Your task to perform on an android device: turn smart compose on in the gmail app Image 0: 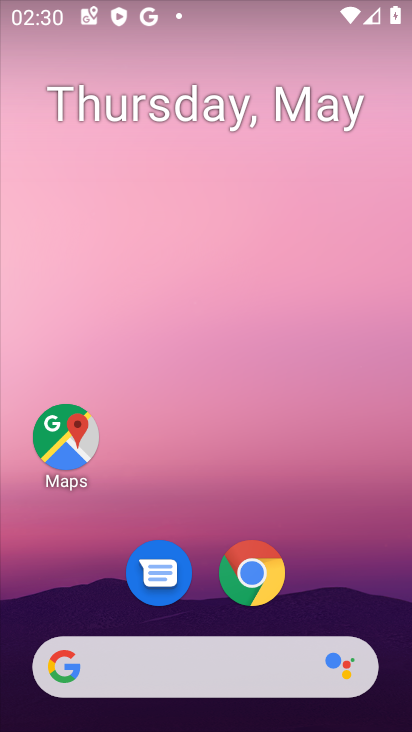
Step 0: drag from (328, 455) to (328, 297)
Your task to perform on an android device: turn smart compose on in the gmail app Image 1: 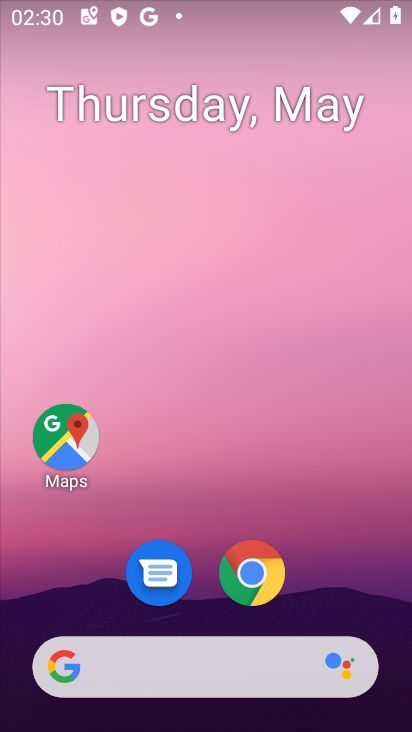
Step 1: drag from (321, 591) to (338, 176)
Your task to perform on an android device: turn smart compose on in the gmail app Image 2: 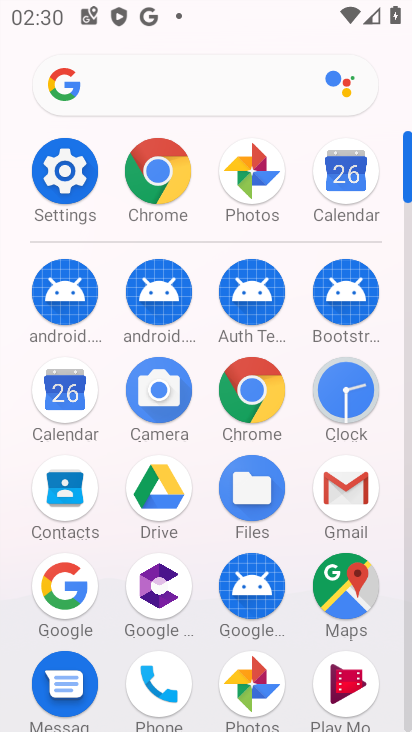
Step 2: click (334, 491)
Your task to perform on an android device: turn smart compose on in the gmail app Image 3: 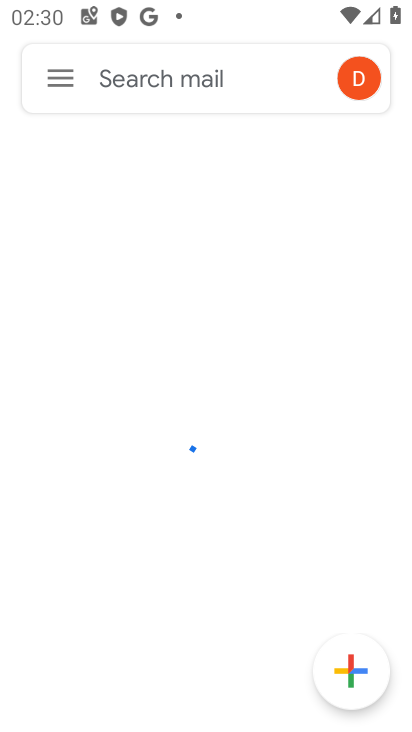
Step 3: click (61, 71)
Your task to perform on an android device: turn smart compose on in the gmail app Image 4: 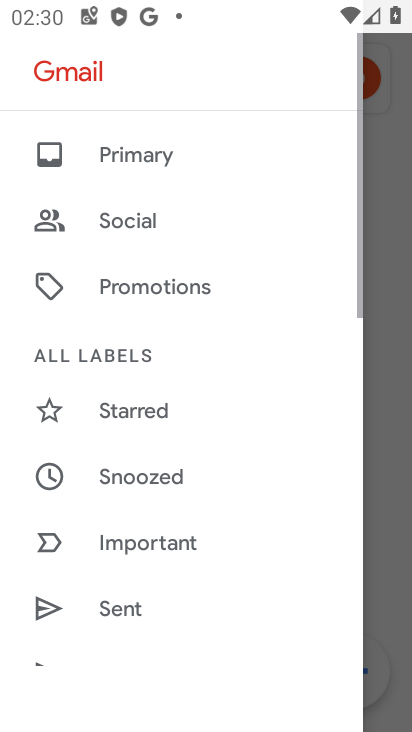
Step 4: drag from (136, 622) to (195, 210)
Your task to perform on an android device: turn smart compose on in the gmail app Image 5: 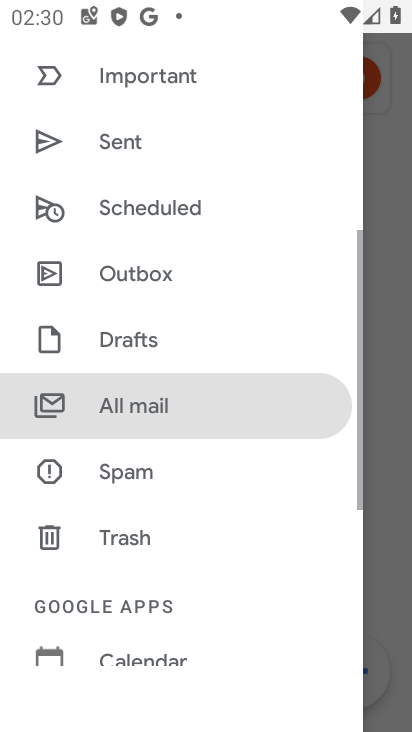
Step 5: drag from (147, 638) to (190, 240)
Your task to perform on an android device: turn smart compose on in the gmail app Image 6: 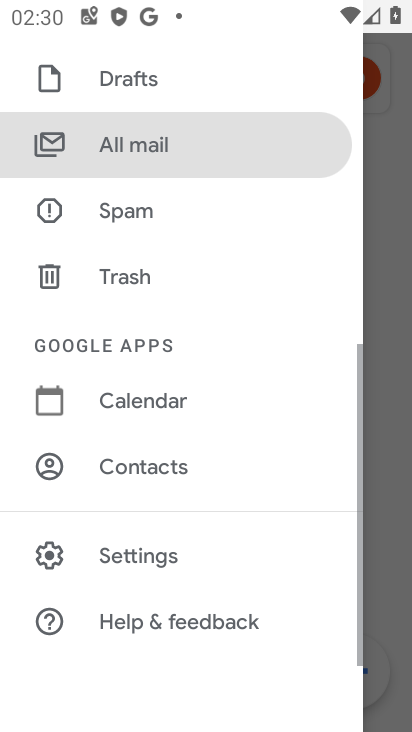
Step 6: click (157, 555)
Your task to perform on an android device: turn smart compose on in the gmail app Image 7: 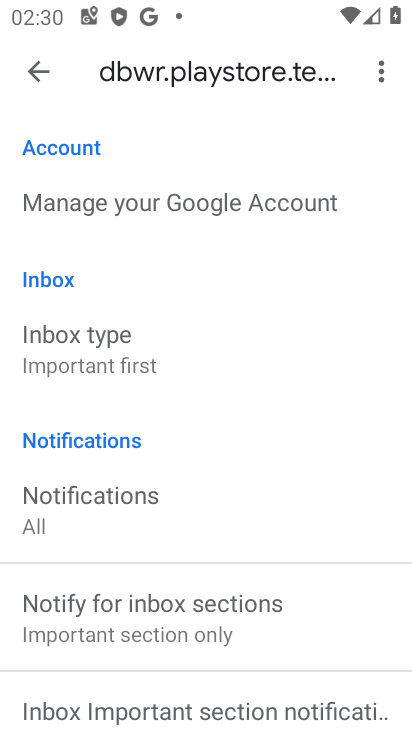
Step 7: task complete